Your task to perform on an android device: Open battery settings Image 0: 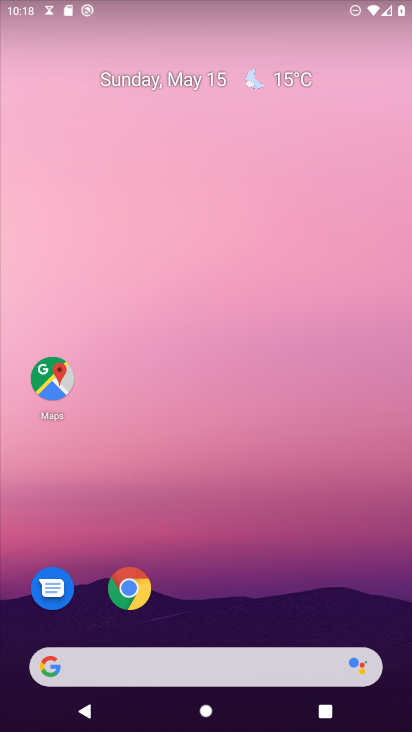
Step 0: drag from (221, 627) to (318, 247)
Your task to perform on an android device: Open battery settings Image 1: 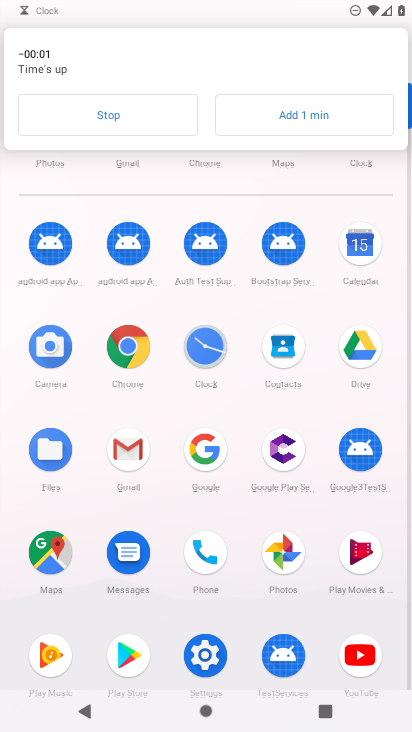
Step 1: click (198, 650)
Your task to perform on an android device: Open battery settings Image 2: 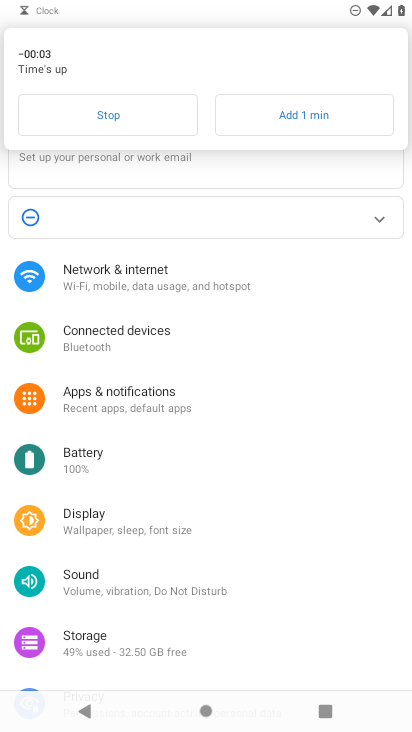
Step 2: click (151, 125)
Your task to perform on an android device: Open battery settings Image 3: 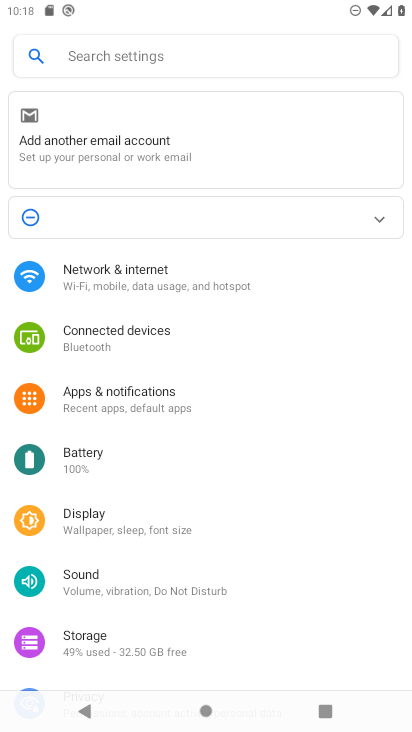
Step 3: click (90, 466)
Your task to perform on an android device: Open battery settings Image 4: 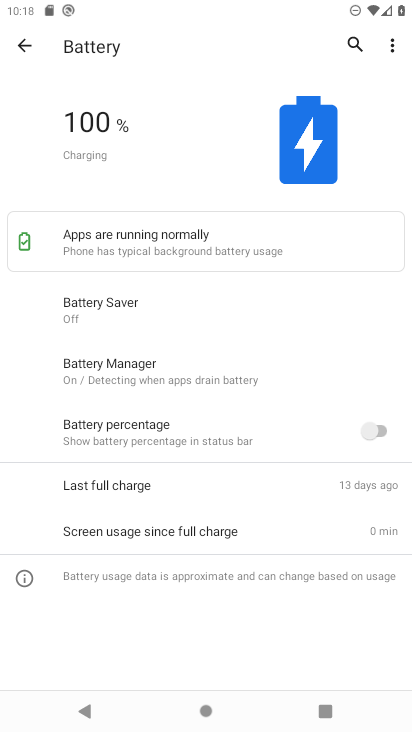
Step 4: task complete